Your task to perform on an android device: Go to Amazon Image 0: 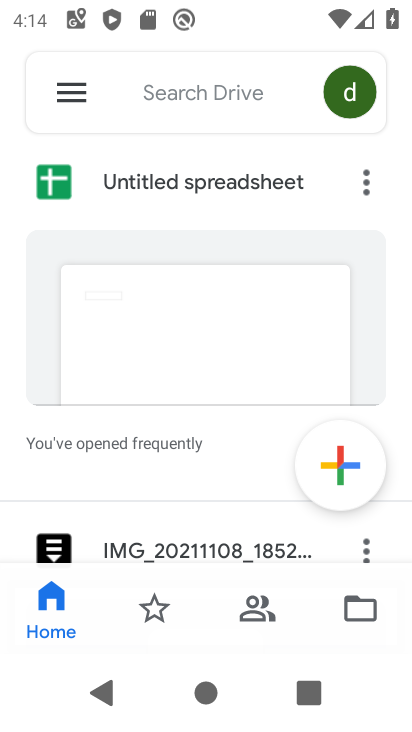
Step 0: press home button
Your task to perform on an android device: Go to Amazon Image 1: 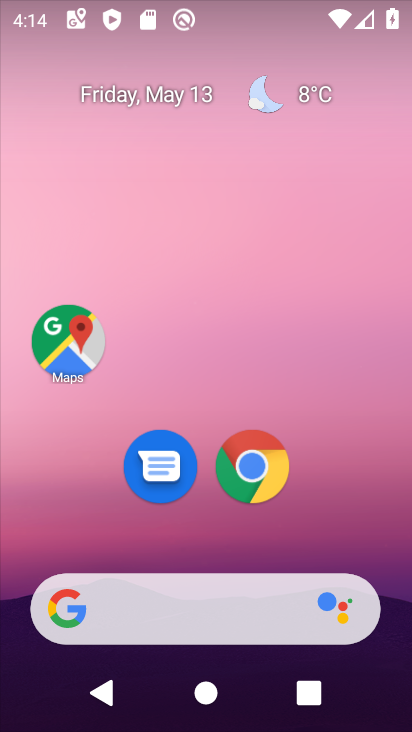
Step 1: click (250, 465)
Your task to perform on an android device: Go to Amazon Image 2: 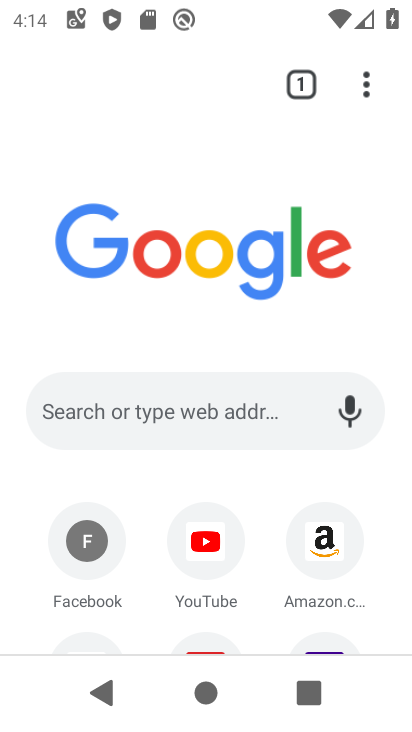
Step 2: click (155, 433)
Your task to perform on an android device: Go to Amazon Image 3: 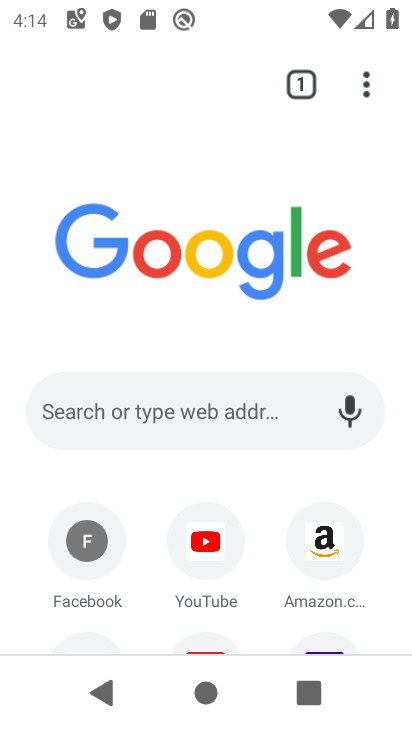
Step 3: click (155, 433)
Your task to perform on an android device: Go to Amazon Image 4: 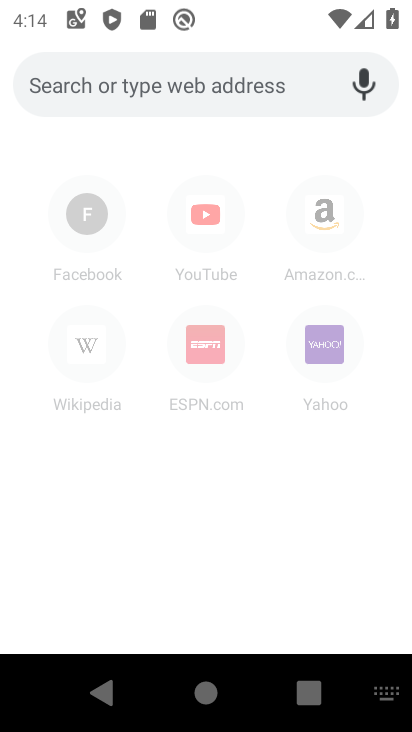
Step 4: type "amazon"
Your task to perform on an android device: Go to Amazon Image 5: 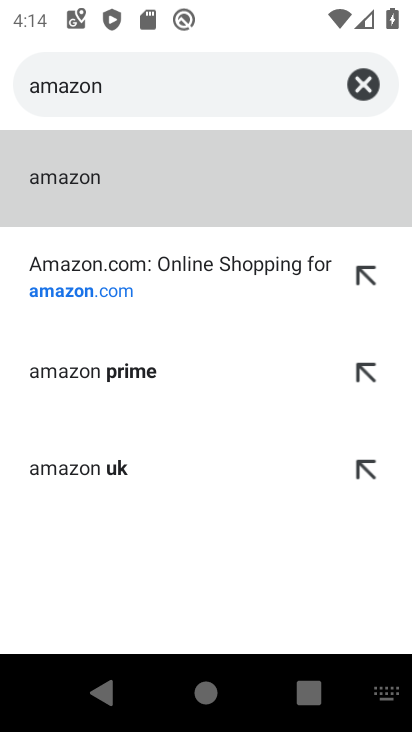
Step 5: click (80, 271)
Your task to perform on an android device: Go to Amazon Image 6: 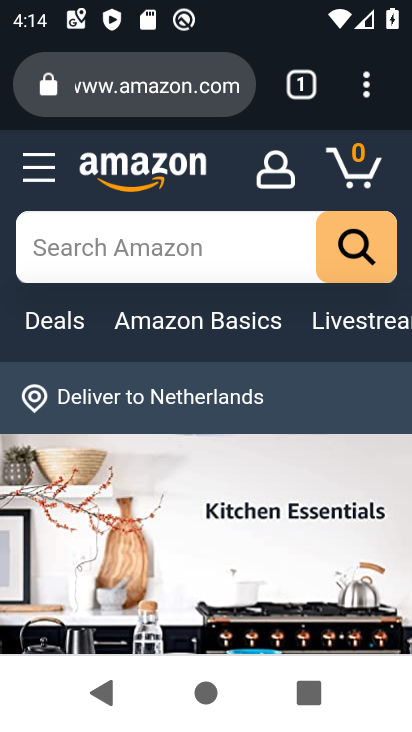
Step 6: task complete